Your task to perform on an android device: open device folders in google photos Image 0: 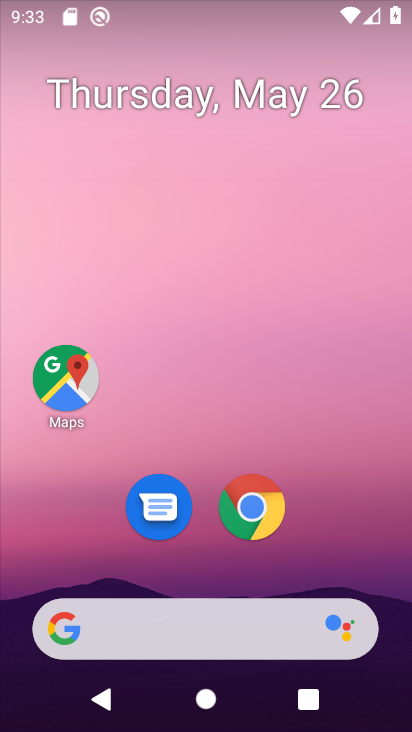
Step 0: drag from (371, 563) to (350, 118)
Your task to perform on an android device: open device folders in google photos Image 1: 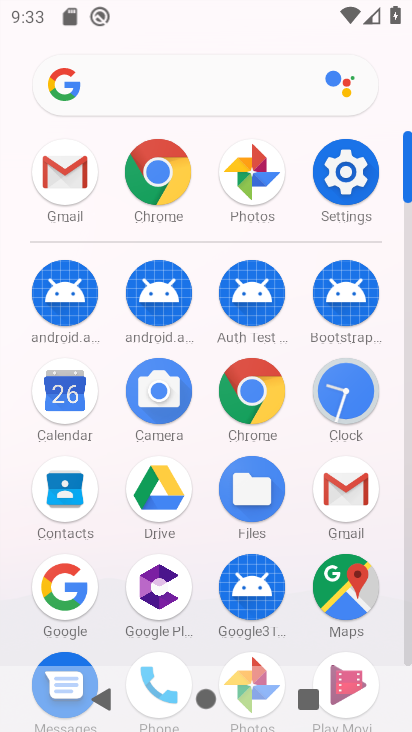
Step 1: drag from (292, 544) to (298, 292)
Your task to perform on an android device: open device folders in google photos Image 2: 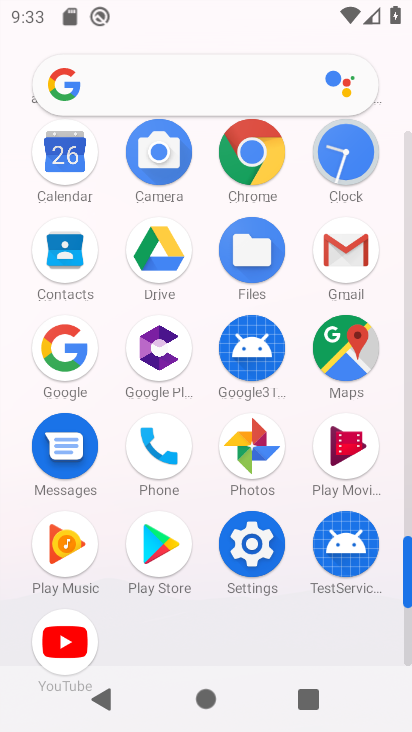
Step 2: click (261, 458)
Your task to perform on an android device: open device folders in google photos Image 3: 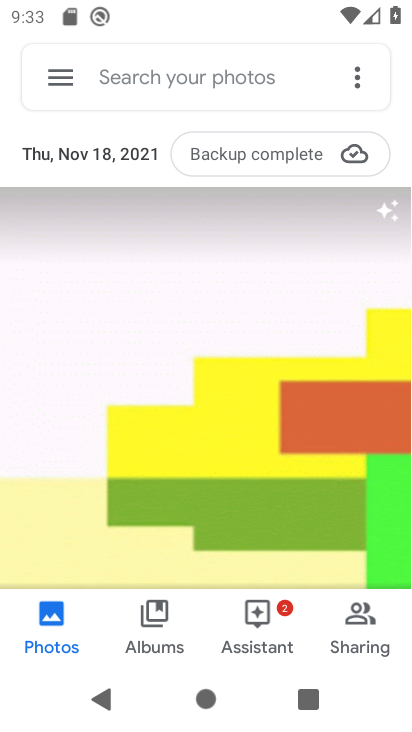
Step 3: click (58, 76)
Your task to perform on an android device: open device folders in google photos Image 4: 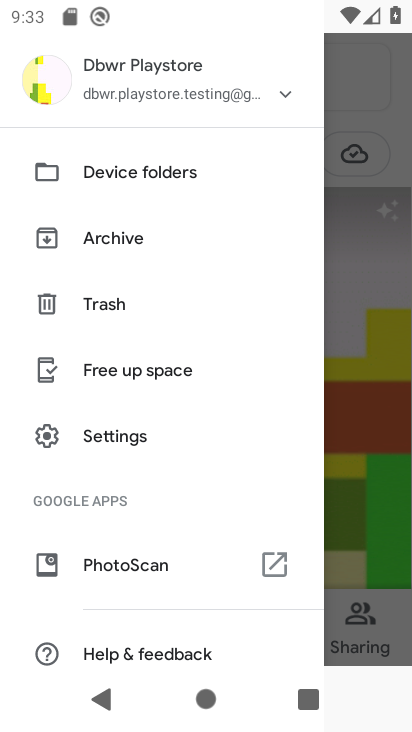
Step 4: click (128, 161)
Your task to perform on an android device: open device folders in google photos Image 5: 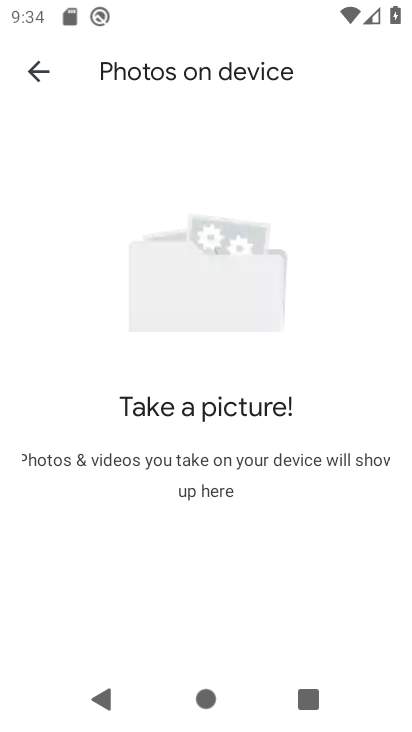
Step 5: task complete